Your task to perform on an android device: Open Google Maps and go to "Timeline" Image 0: 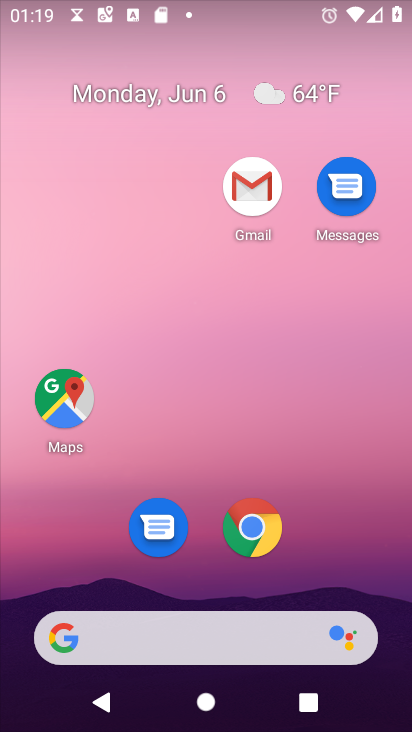
Step 0: drag from (327, 541) to (297, 38)
Your task to perform on an android device: Open Google Maps and go to "Timeline" Image 1: 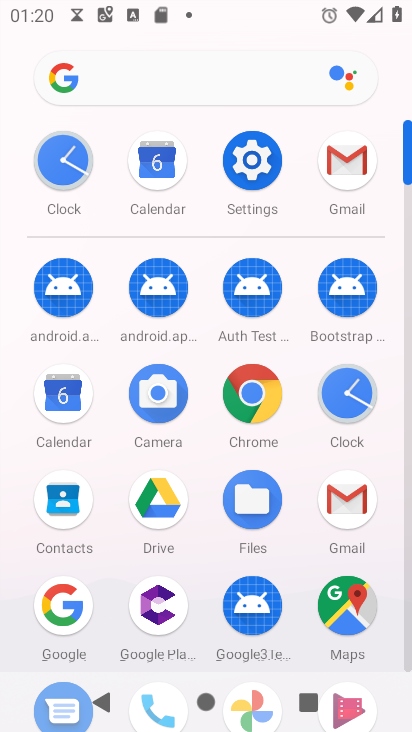
Step 1: click (340, 607)
Your task to perform on an android device: Open Google Maps and go to "Timeline" Image 2: 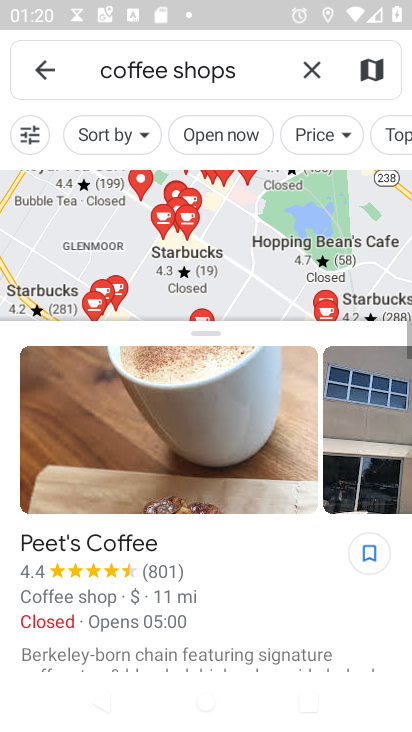
Step 2: click (41, 70)
Your task to perform on an android device: Open Google Maps and go to "Timeline" Image 3: 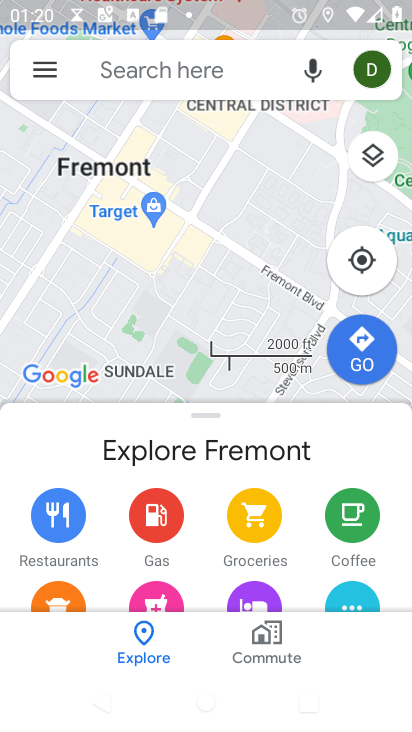
Step 3: click (41, 70)
Your task to perform on an android device: Open Google Maps and go to "Timeline" Image 4: 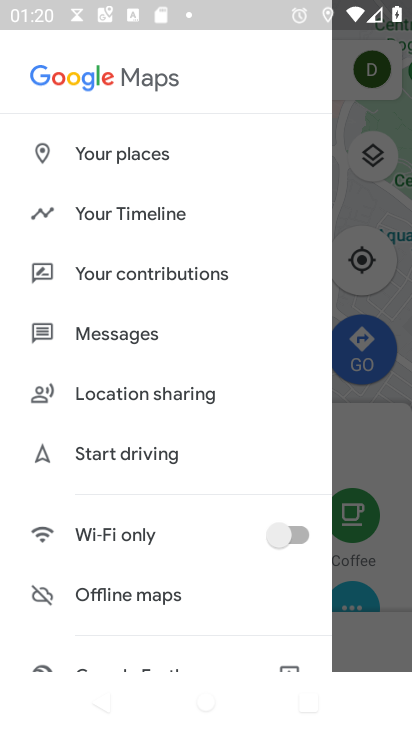
Step 4: click (169, 215)
Your task to perform on an android device: Open Google Maps and go to "Timeline" Image 5: 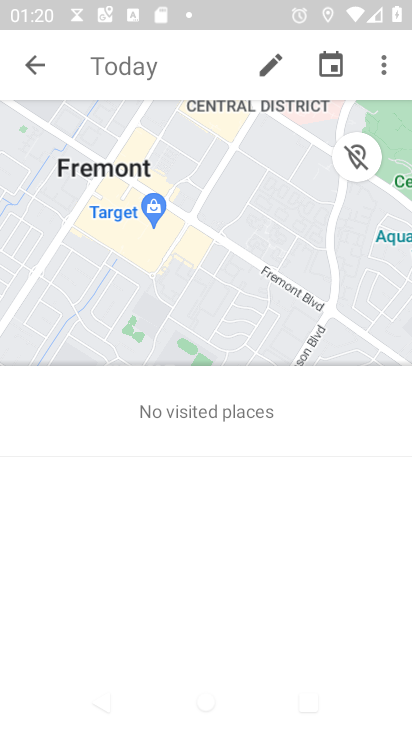
Step 5: task complete